Your task to perform on an android device: toggle airplane mode Image 0: 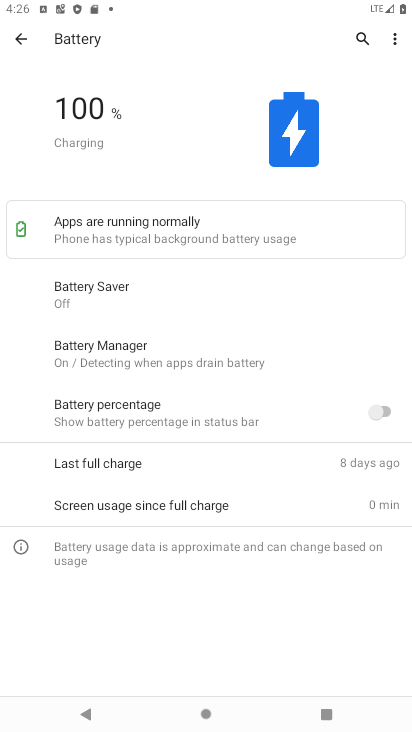
Step 0: press home button
Your task to perform on an android device: toggle airplane mode Image 1: 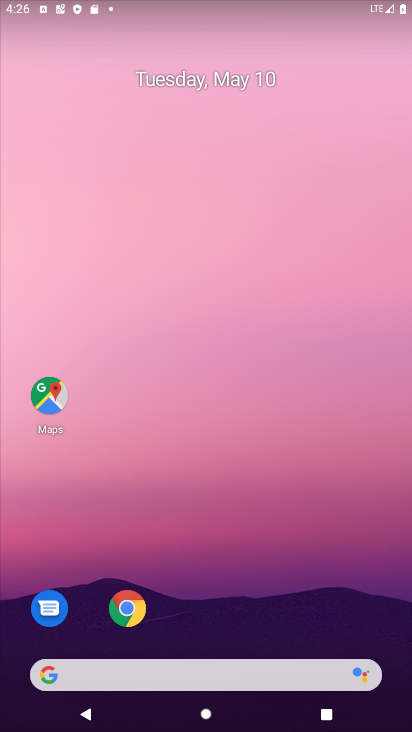
Step 1: drag from (355, 639) to (256, 71)
Your task to perform on an android device: toggle airplane mode Image 2: 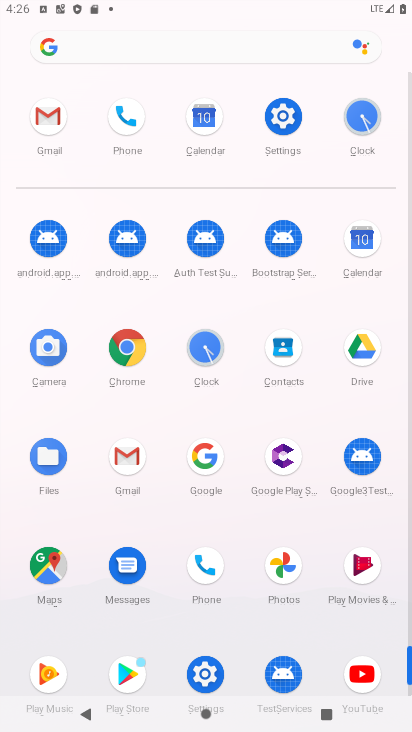
Step 2: click (205, 672)
Your task to perform on an android device: toggle airplane mode Image 3: 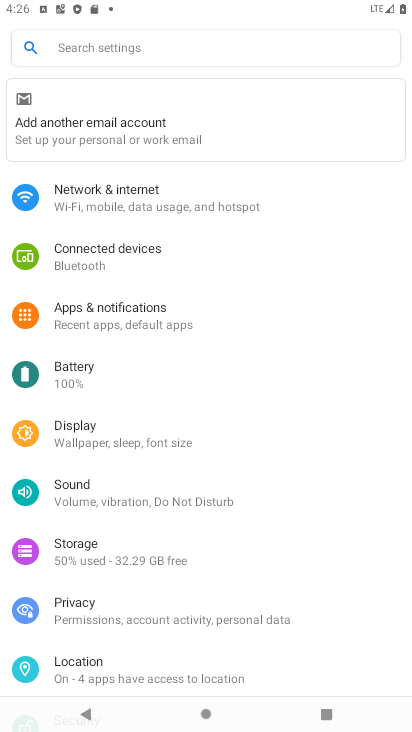
Step 3: click (98, 199)
Your task to perform on an android device: toggle airplane mode Image 4: 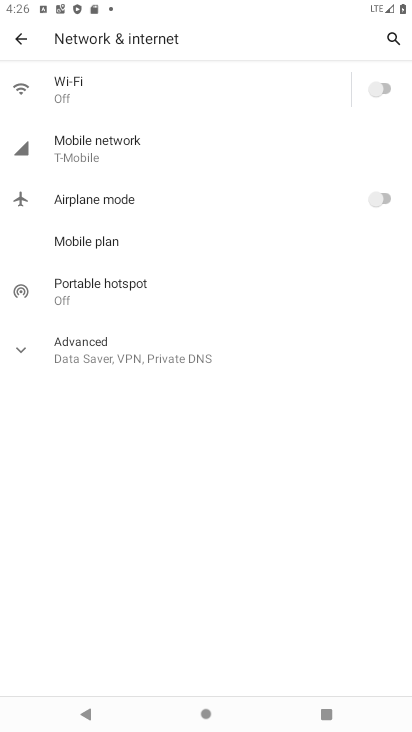
Step 4: click (384, 198)
Your task to perform on an android device: toggle airplane mode Image 5: 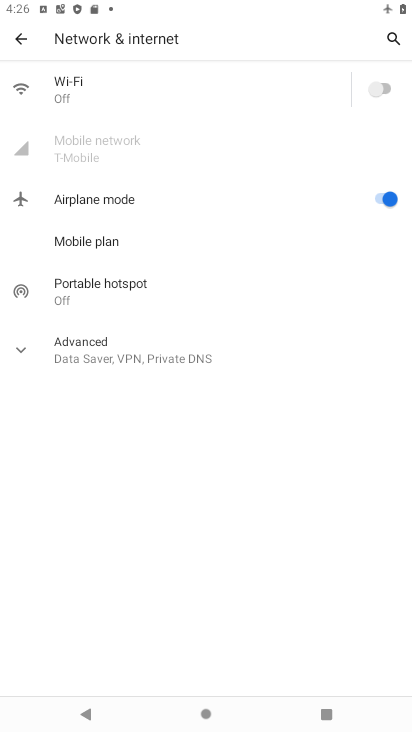
Step 5: task complete